Your task to perform on an android device: add a contact Image 0: 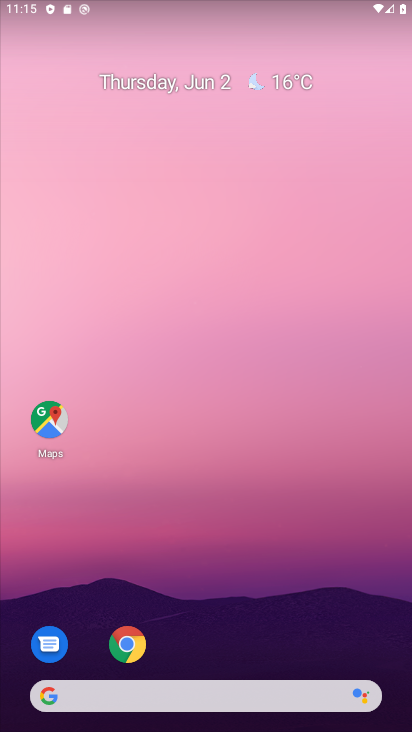
Step 0: drag from (311, 426) to (344, 300)
Your task to perform on an android device: add a contact Image 1: 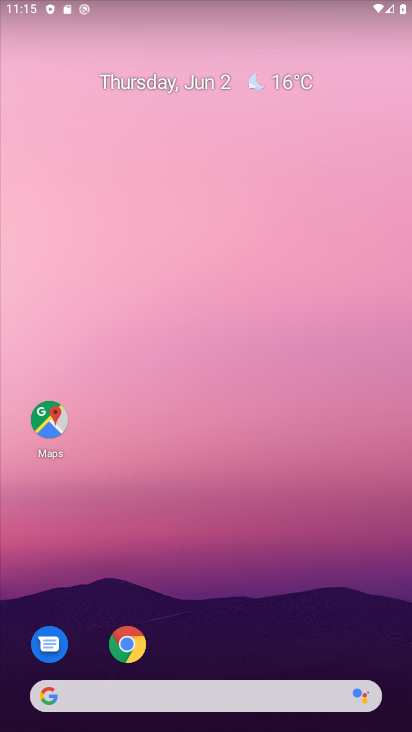
Step 1: drag from (226, 595) to (229, 9)
Your task to perform on an android device: add a contact Image 2: 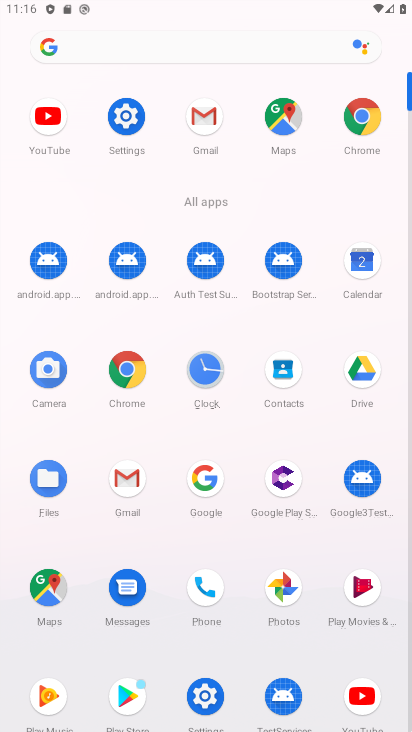
Step 2: click (283, 373)
Your task to perform on an android device: add a contact Image 3: 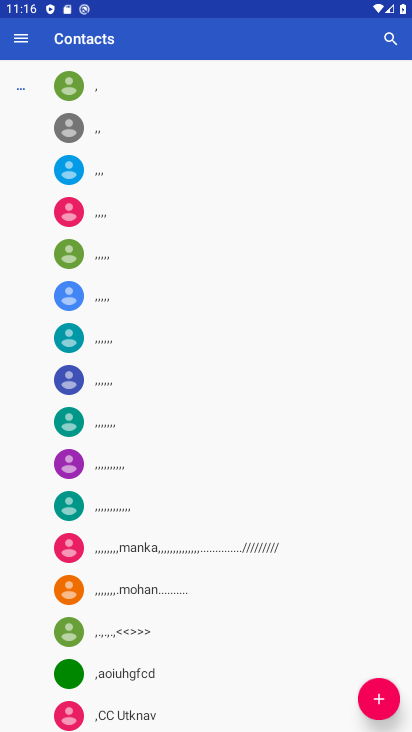
Step 3: click (382, 719)
Your task to perform on an android device: add a contact Image 4: 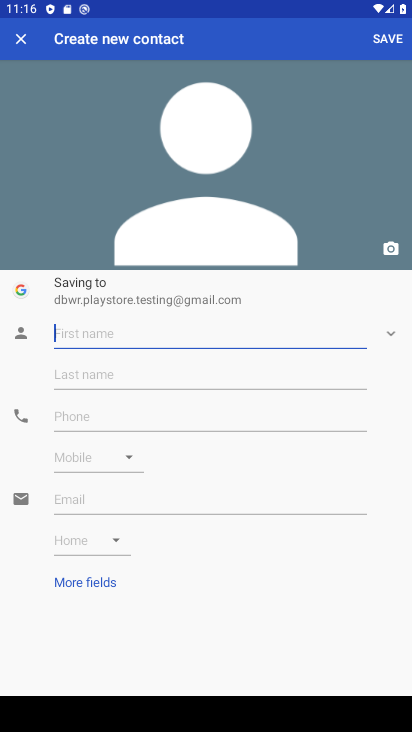
Step 4: click (137, 334)
Your task to perform on an android device: add a contact Image 5: 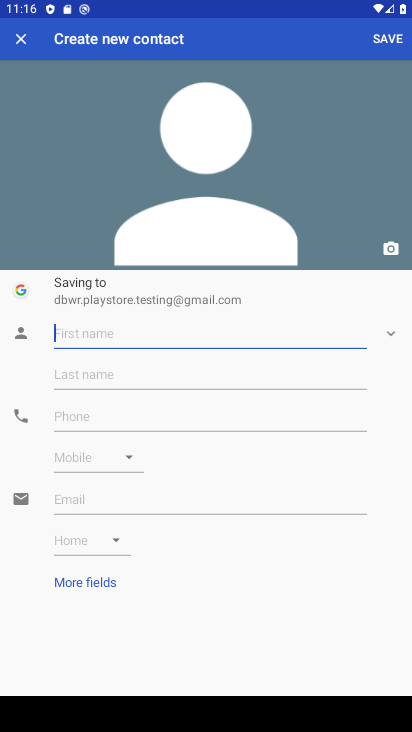
Step 5: type "mj"
Your task to perform on an android device: add a contact Image 6: 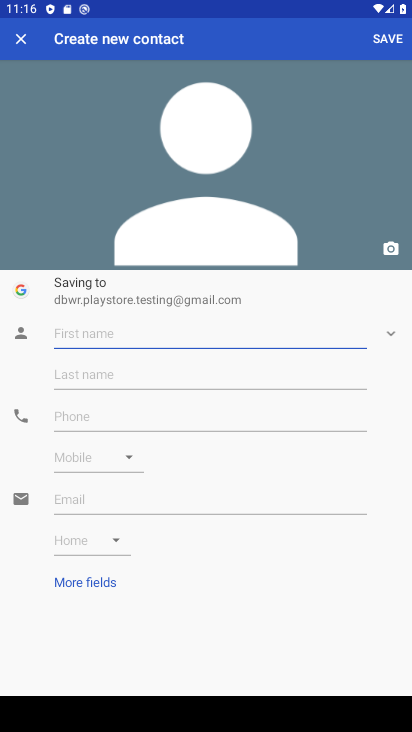
Step 6: click (191, 383)
Your task to perform on an android device: add a contact Image 7: 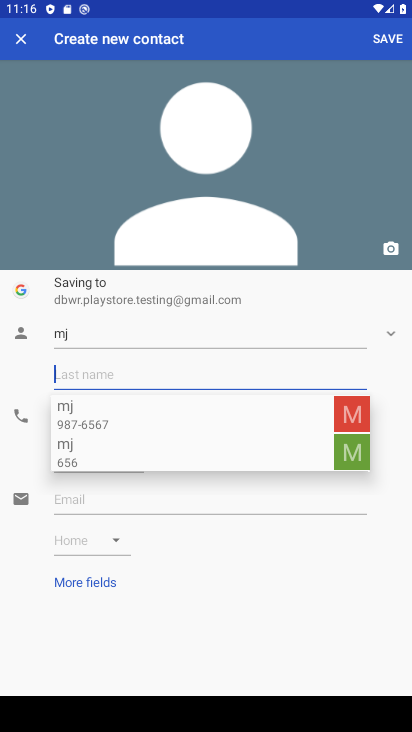
Step 7: type "hbjh"
Your task to perform on an android device: add a contact Image 8: 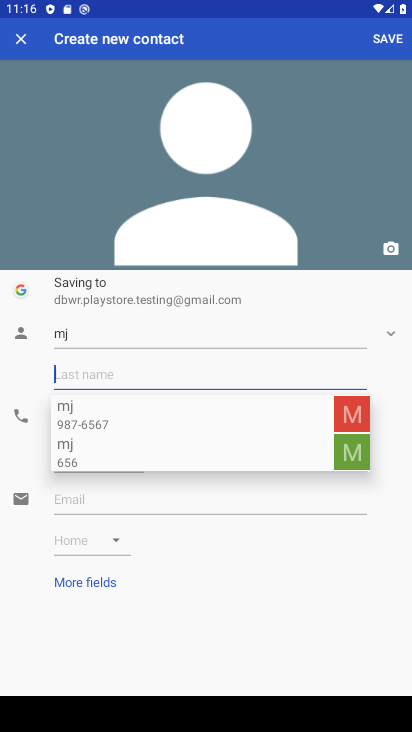
Step 8: click (85, 487)
Your task to perform on an android device: add a contact Image 9: 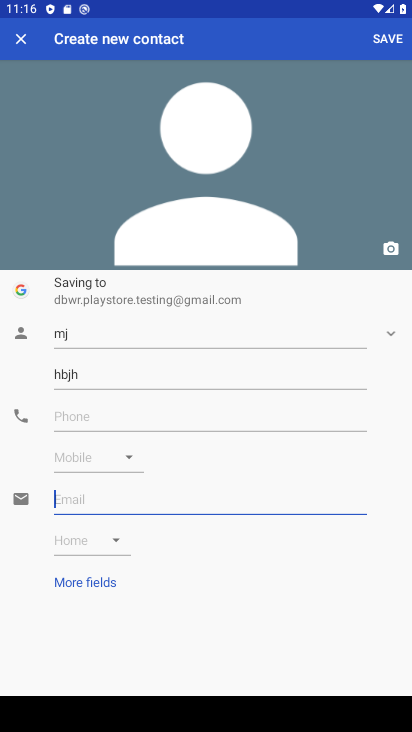
Step 9: click (84, 412)
Your task to perform on an android device: add a contact Image 10: 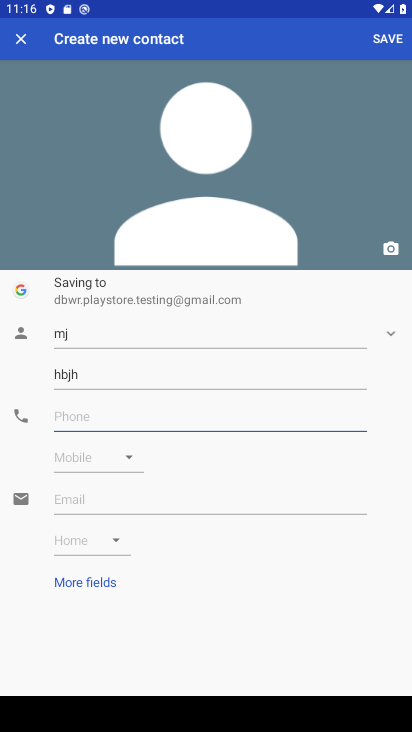
Step 10: type "7t678"
Your task to perform on an android device: add a contact Image 11: 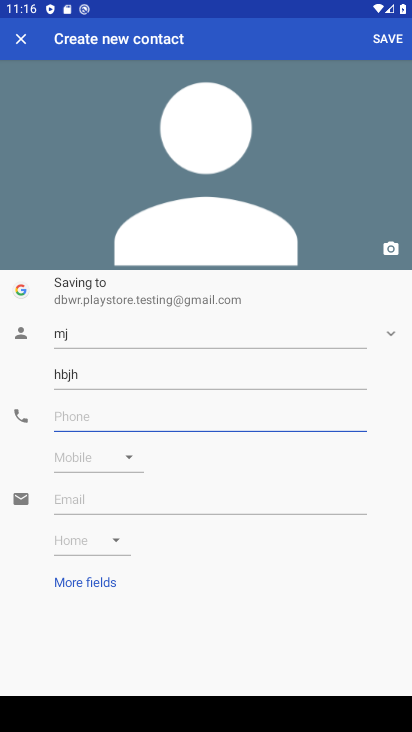
Step 11: click (180, 468)
Your task to perform on an android device: add a contact Image 12: 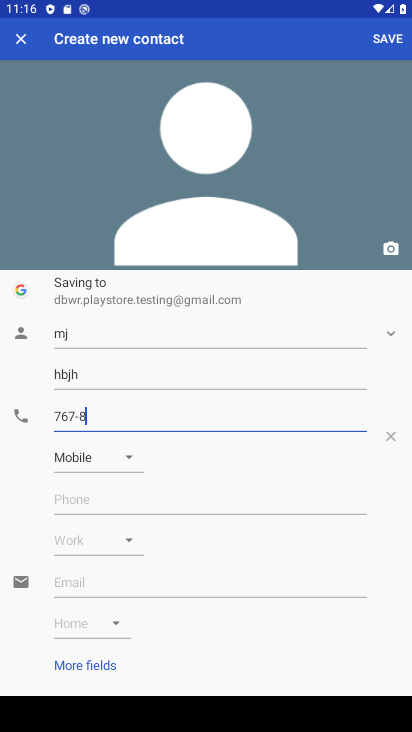
Step 12: click (403, 34)
Your task to perform on an android device: add a contact Image 13: 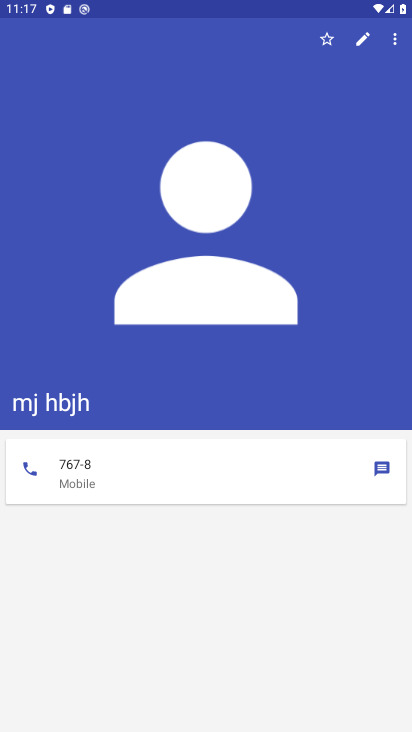
Step 13: task complete